Your task to perform on an android device: Open calendar and show me the first week of next month Image 0: 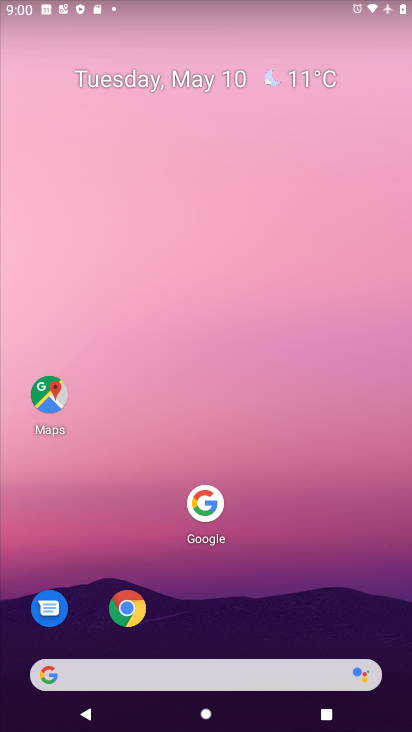
Step 0: press home button
Your task to perform on an android device: Open calendar and show me the first week of next month Image 1: 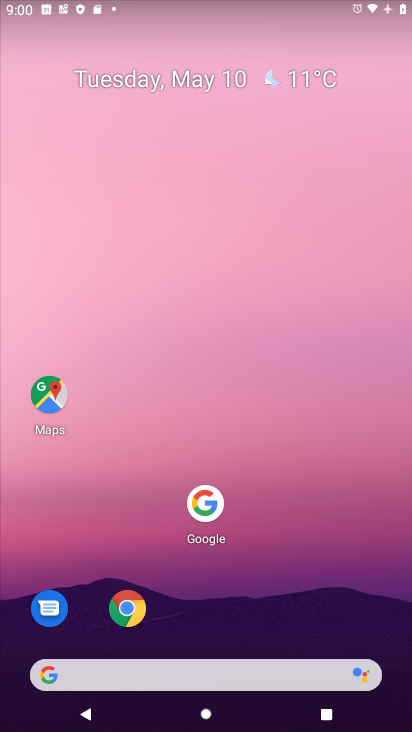
Step 1: drag from (129, 674) to (341, 426)
Your task to perform on an android device: Open calendar and show me the first week of next month Image 2: 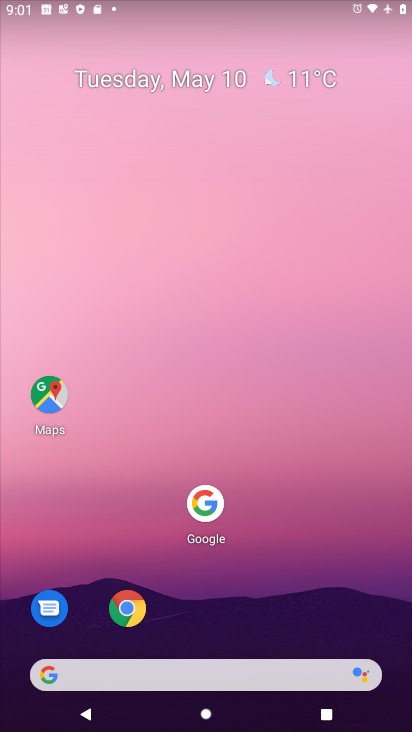
Step 2: click (305, 422)
Your task to perform on an android device: Open calendar and show me the first week of next month Image 3: 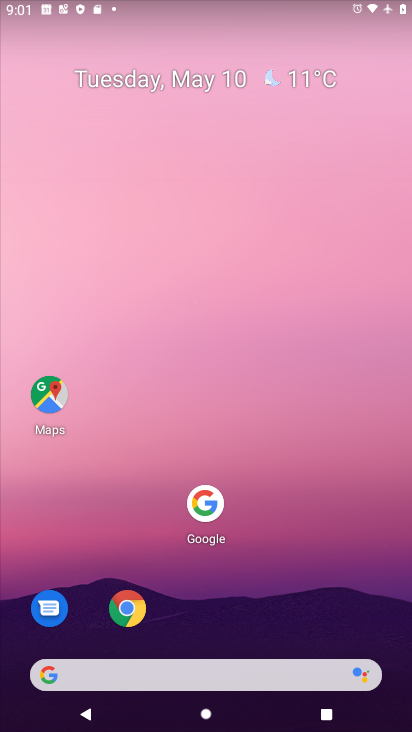
Step 3: drag from (237, 667) to (366, 41)
Your task to perform on an android device: Open calendar and show me the first week of next month Image 4: 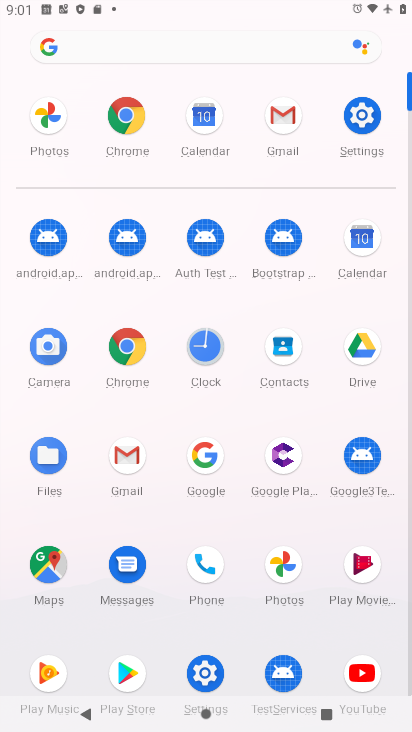
Step 4: click (361, 241)
Your task to perform on an android device: Open calendar and show me the first week of next month Image 5: 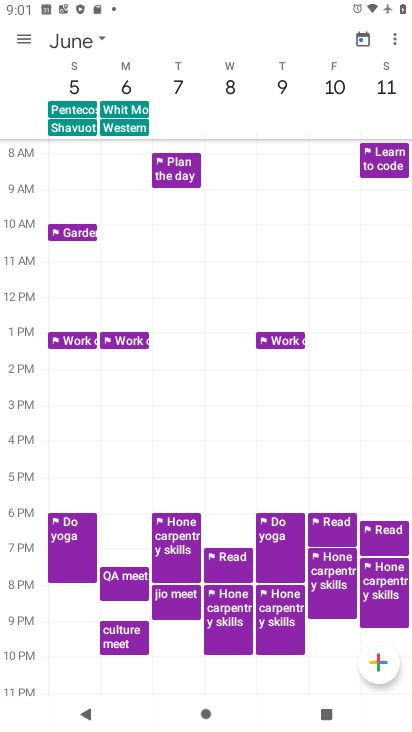
Step 5: click (84, 37)
Your task to perform on an android device: Open calendar and show me the first week of next month Image 6: 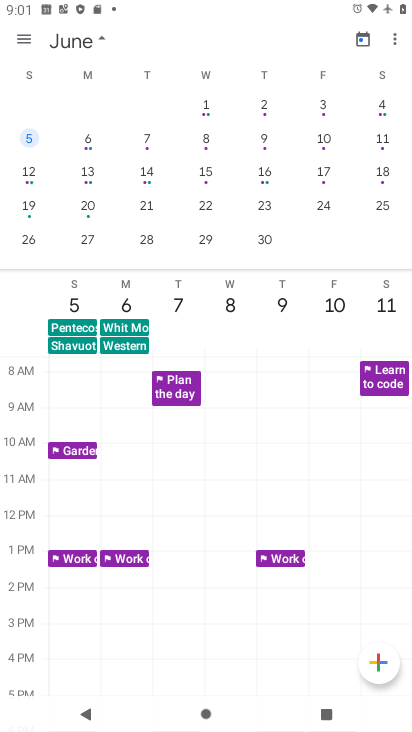
Step 6: click (206, 102)
Your task to perform on an android device: Open calendar and show me the first week of next month Image 7: 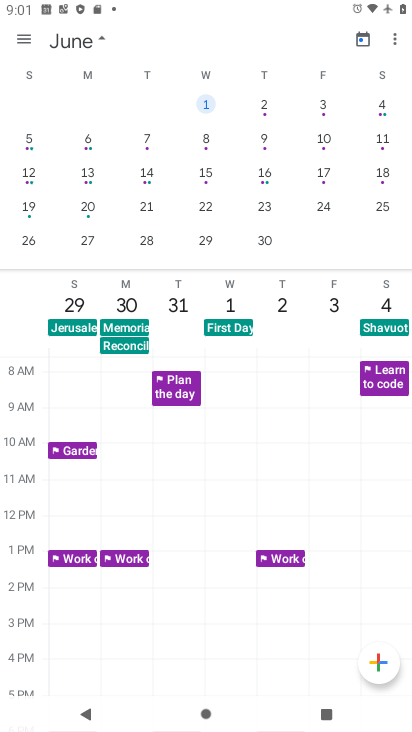
Step 7: click (33, 43)
Your task to perform on an android device: Open calendar and show me the first week of next month Image 8: 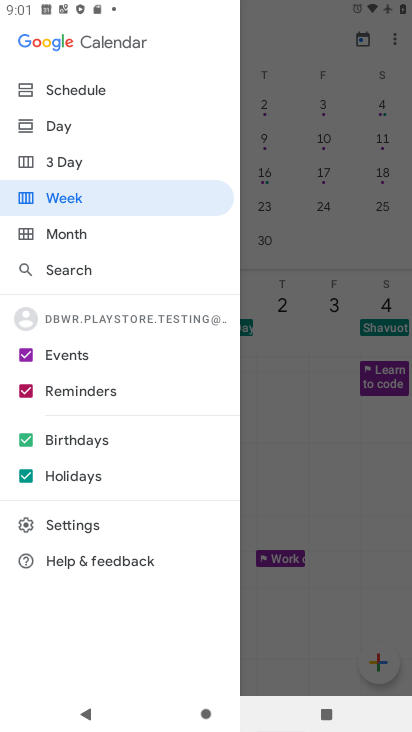
Step 8: click (65, 203)
Your task to perform on an android device: Open calendar and show me the first week of next month Image 9: 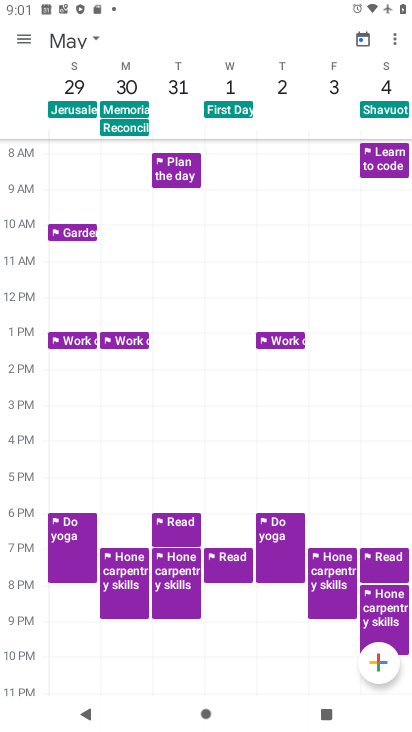
Step 9: task complete